Your task to perform on an android device: Find coffee shops on Maps Image 0: 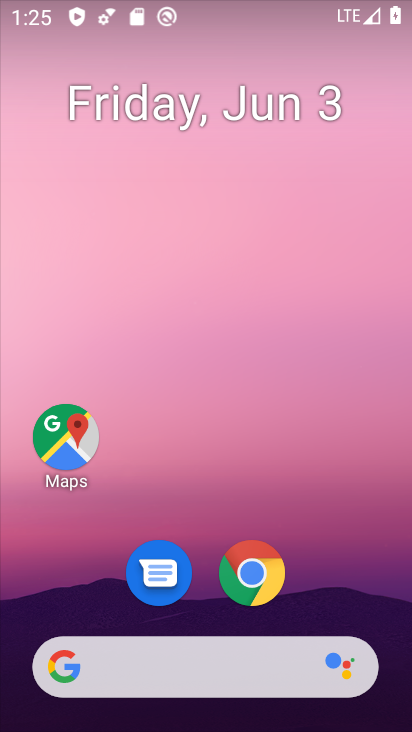
Step 0: drag from (367, 580) to (368, 213)
Your task to perform on an android device: Find coffee shops on Maps Image 1: 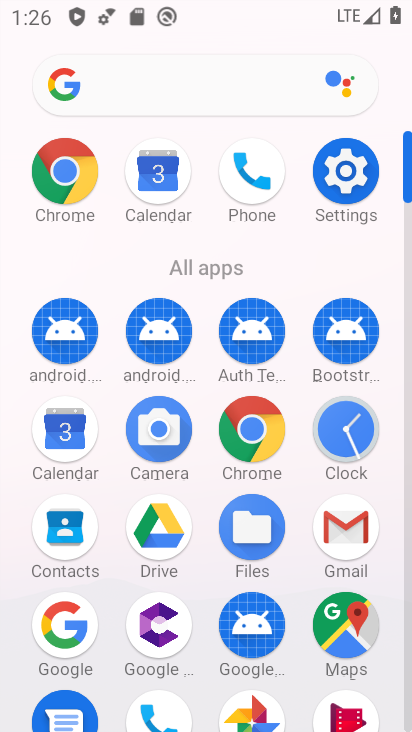
Step 1: click (359, 635)
Your task to perform on an android device: Find coffee shops on Maps Image 2: 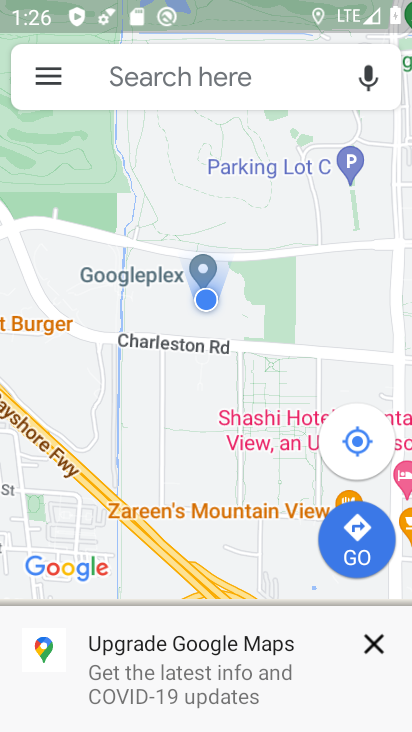
Step 2: click (241, 78)
Your task to perform on an android device: Find coffee shops on Maps Image 3: 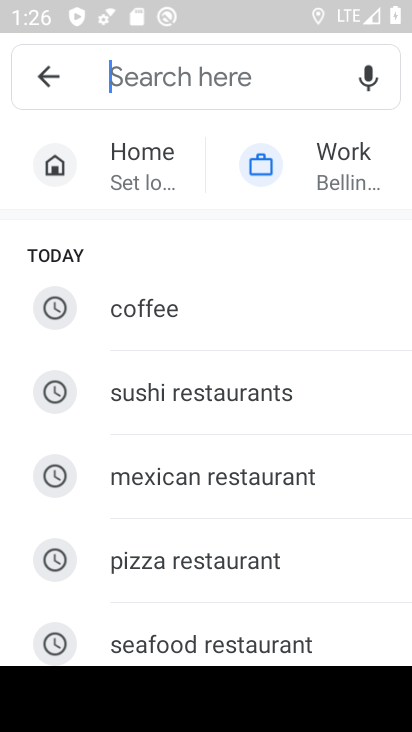
Step 3: type "coffee"
Your task to perform on an android device: Find coffee shops on Maps Image 4: 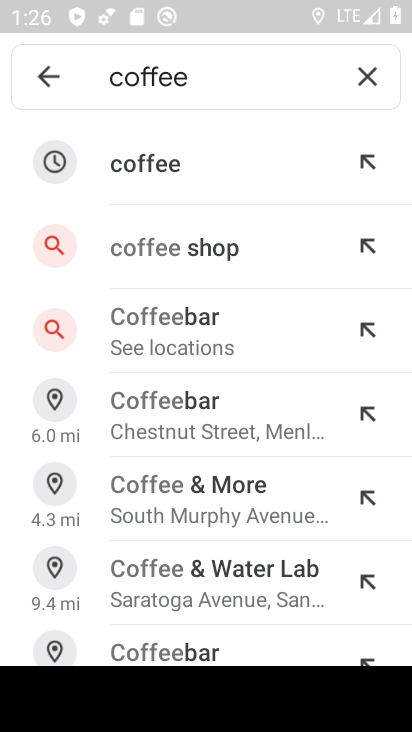
Step 4: click (219, 171)
Your task to perform on an android device: Find coffee shops on Maps Image 5: 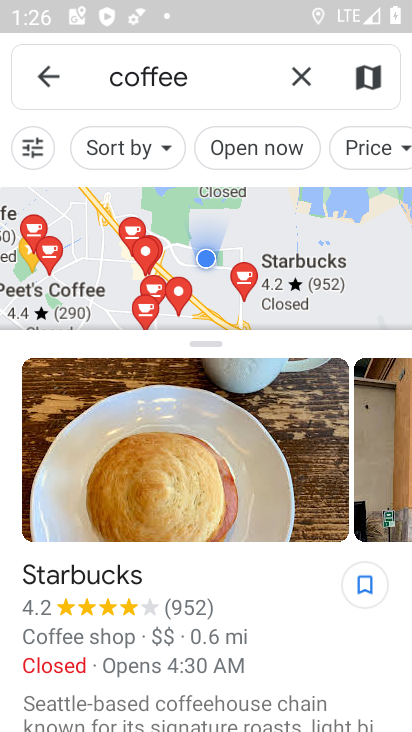
Step 5: task complete